Your task to perform on an android device: turn on notifications settings in the gmail app Image 0: 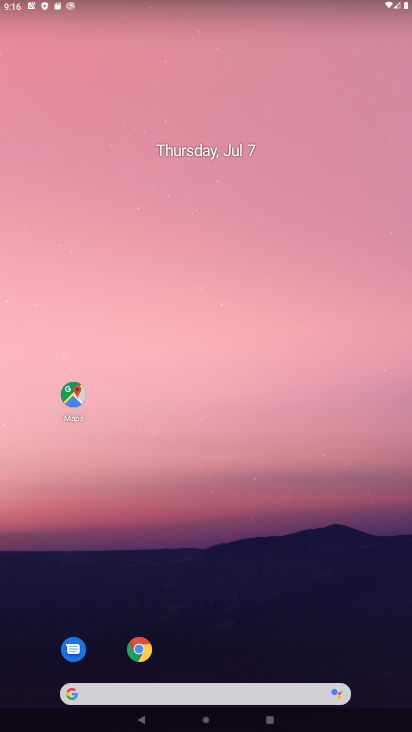
Step 0: drag from (233, 725) to (223, 186)
Your task to perform on an android device: turn on notifications settings in the gmail app Image 1: 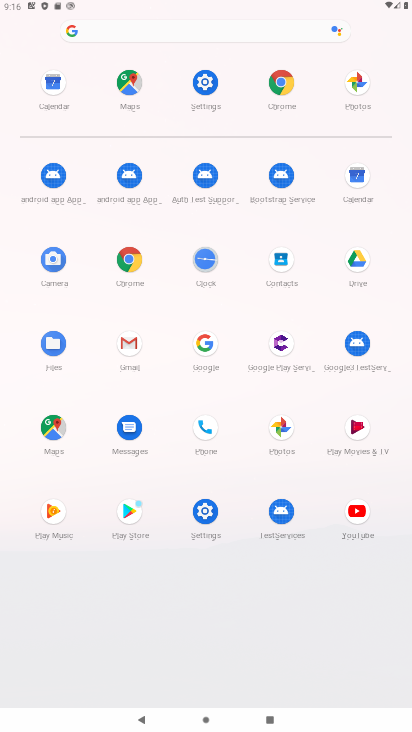
Step 1: click (127, 346)
Your task to perform on an android device: turn on notifications settings in the gmail app Image 2: 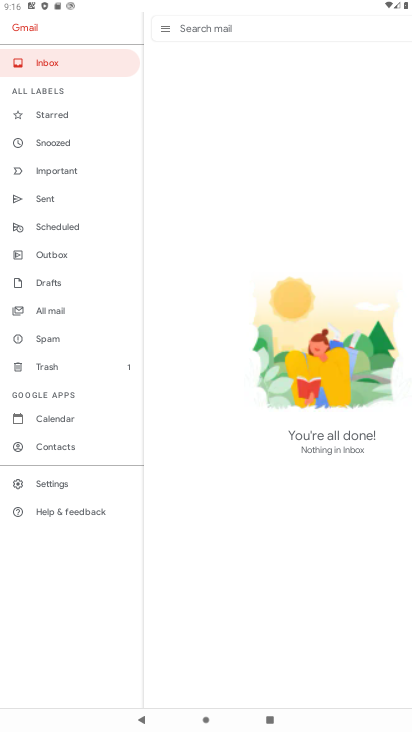
Step 2: click (53, 484)
Your task to perform on an android device: turn on notifications settings in the gmail app Image 3: 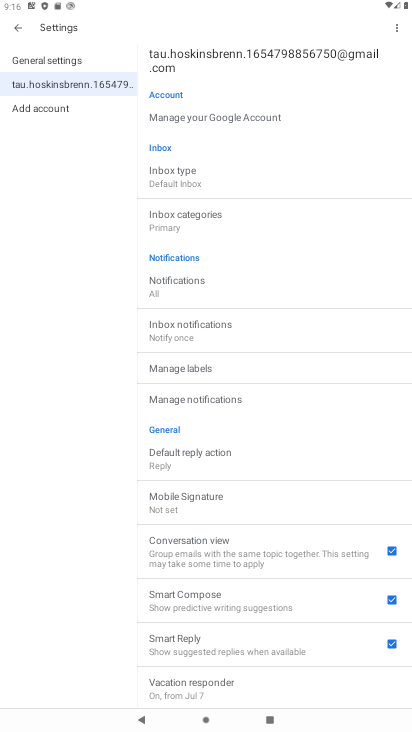
Step 3: click (177, 285)
Your task to perform on an android device: turn on notifications settings in the gmail app Image 4: 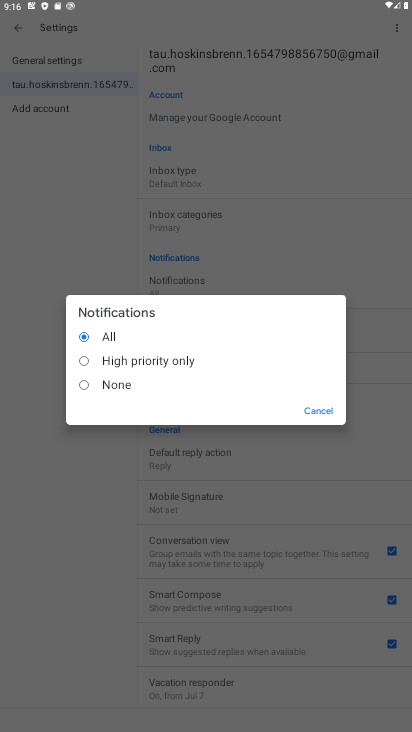
Step 4: task complete